Your task to perform on an android device: open the mobile data screen to see how much data has been used Image 0: 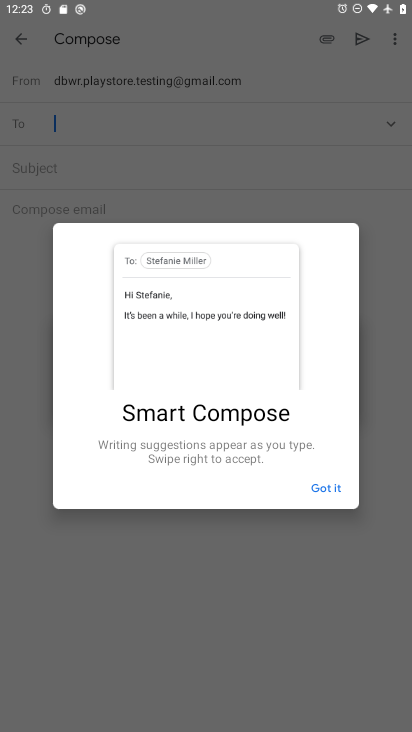
Step 0: press home button
Your task to perform on an android device: open the mobile data screen to see how much data has been used Image 1: 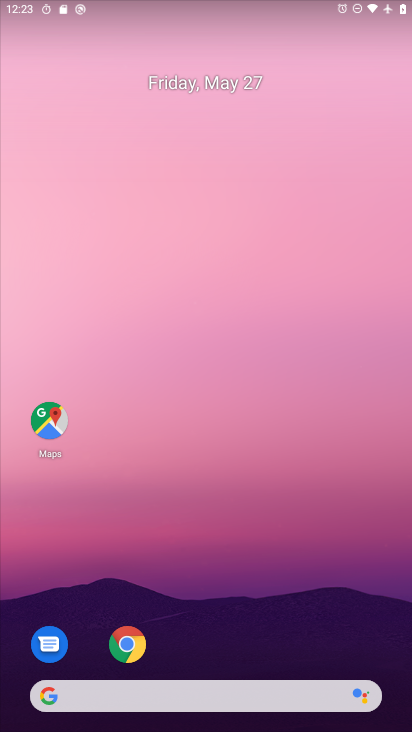
Step 1: drag from (252, 623) to (215, 185)
Your task to perform on an android device: open the mobile data screen to see how much data has been used Image 2: 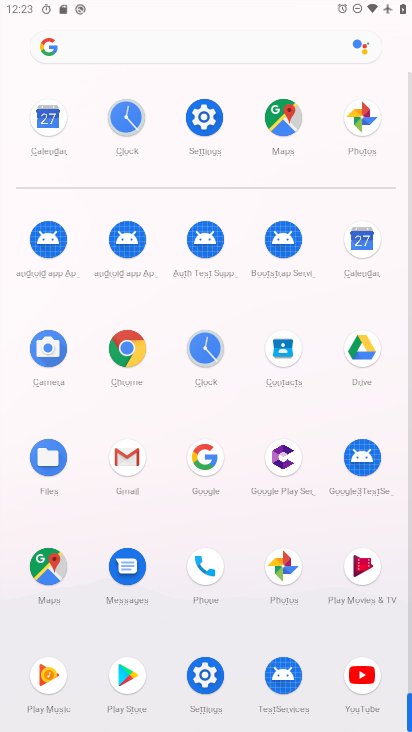
Step 2: click (221, 118)
Your task to perform on an android device: open the mobile data screen to see how much data has been used Image 3: 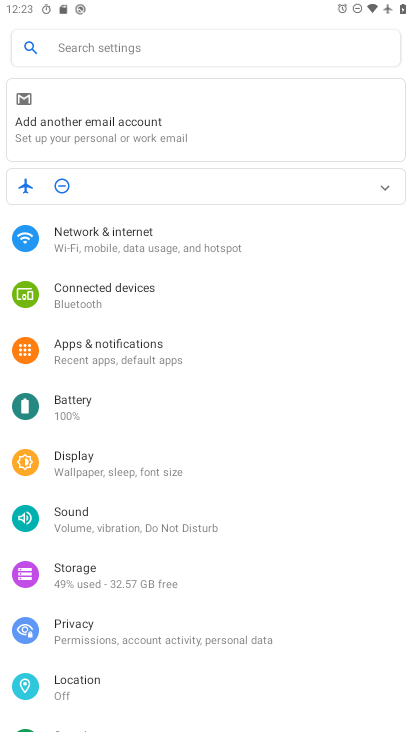
Step 3: click (158, 242)
Your task to perform on an android device: open the mobile data screen to see how much data has been used Image 4: 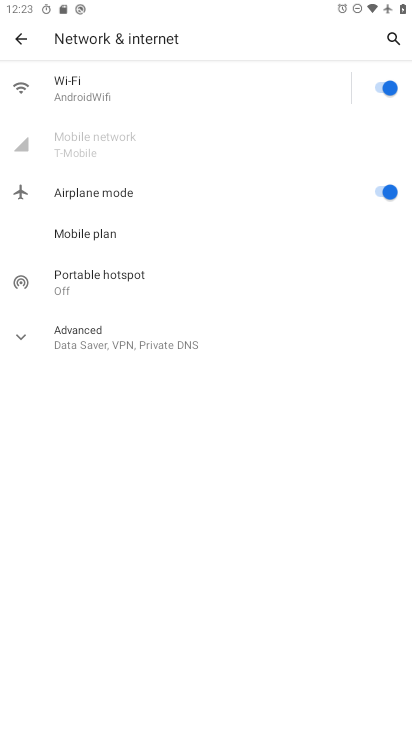
Step 4: click (101, 140)
Your task to perform on an android device: open the mobile data screen to see how much data has been used Image 5: 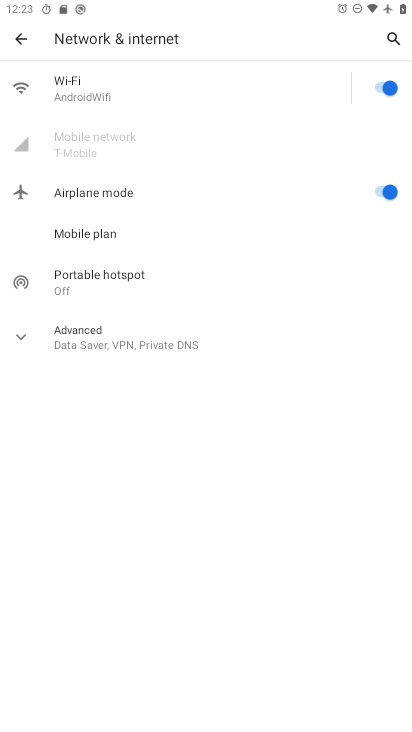
Step 5: click (128, 137)
Your task to perform on an android device: open the mobile data screen to see how much data has been used Image 6: 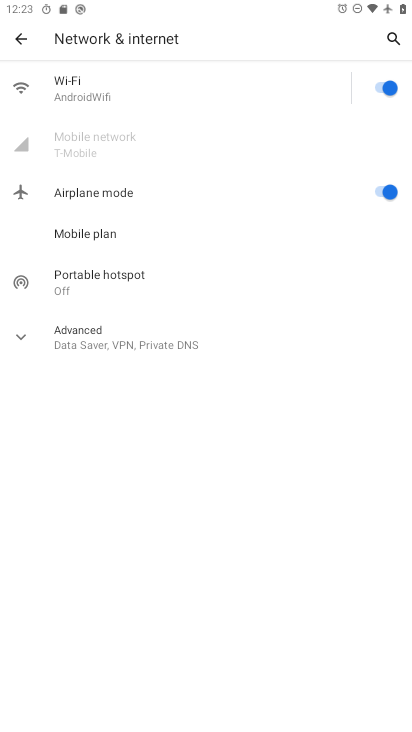
Step 6: task complete